Your task to perform on an android device: check data usage Image 0: 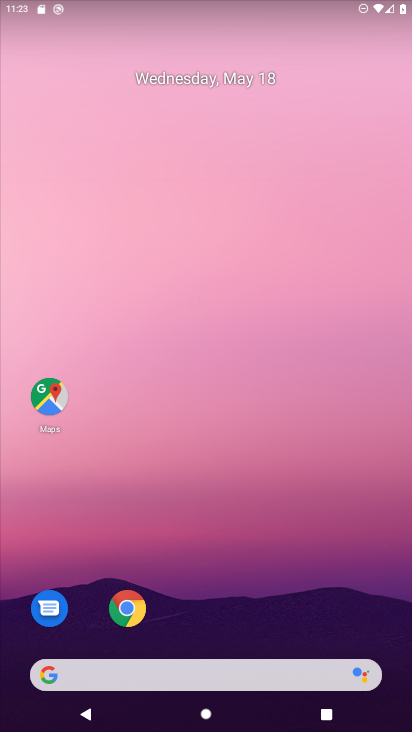
Step 0: drag from (270, 582) to (277, 145)
Your task to perform on an android device: check data usage Image 1: 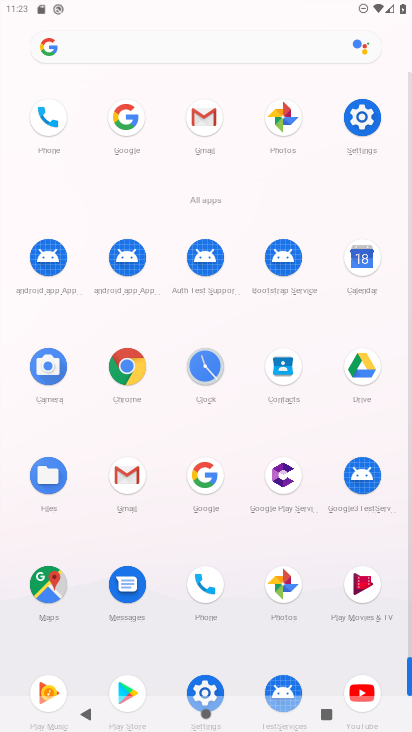
Step 1: click (362, 116)
Your task to perform on an android device: check data usage Image 2: 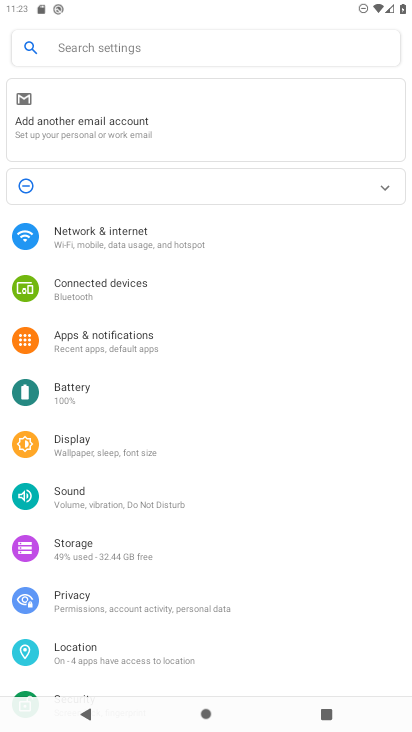
Step 2: click (108, 241)
Your task to perform on an android device: check data usage Image 3: 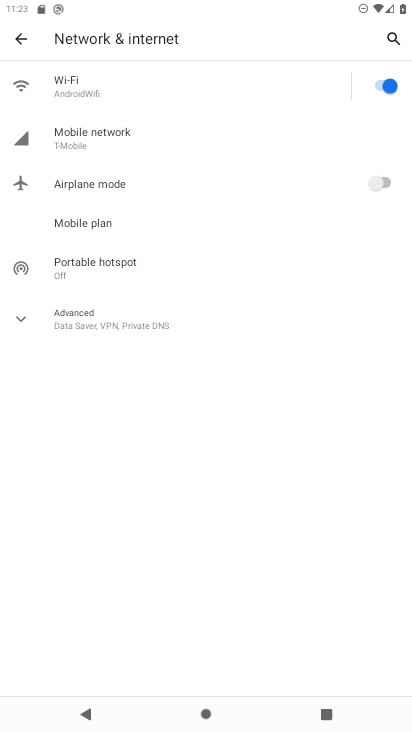
Step 3: click (98, 139)
Your task to perform on an android device: check data usage Image 4: 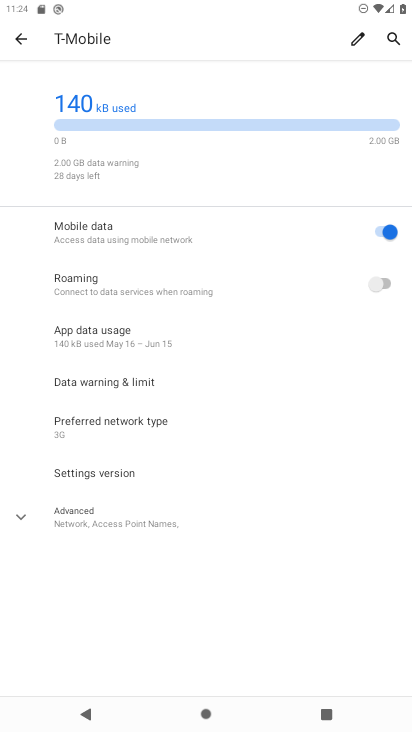
Step 4: task complete